Your task to perform on an android device: Open Yahoo.com Image 0: 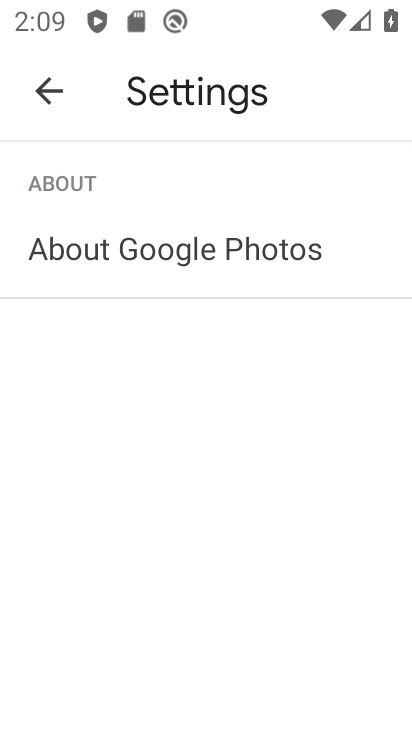
Step 0: press back button
Your task to perform on an android device: Open Yahoo.com Image 1: 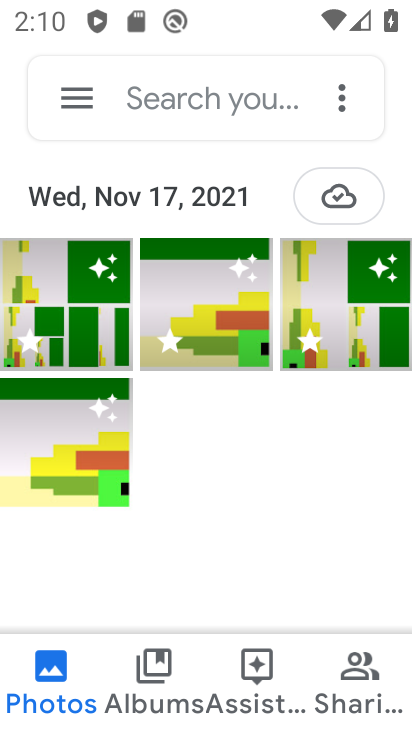
Step 1: press home button
Your task to perform on an android device: Open Yahoo.com Image 2: 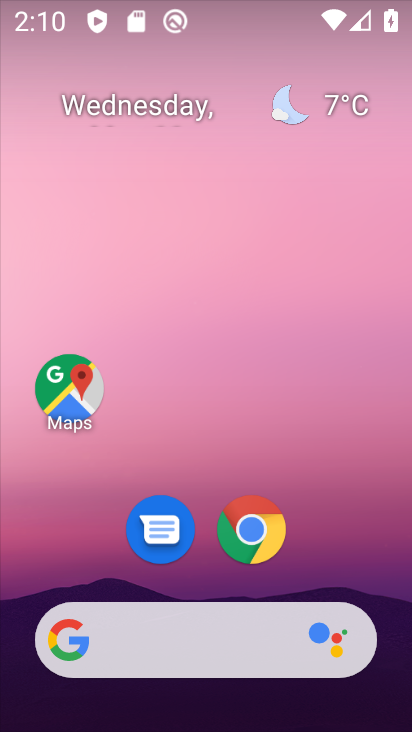
Step 2: click (242, 529)
Your task to perform on an android device: Open Yahoo.com Image 3: 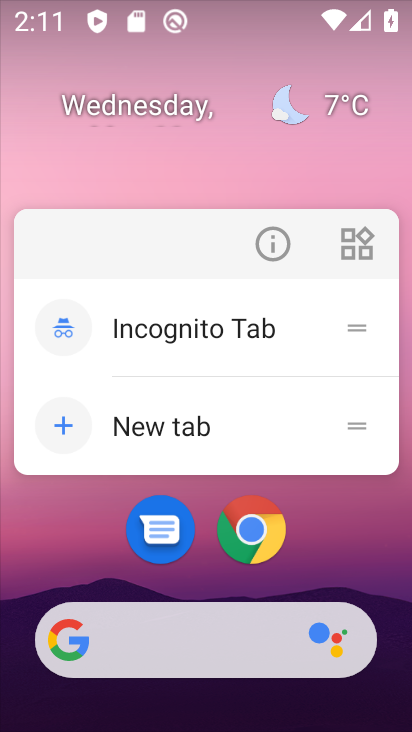
Step 3: click (253, 536)
Your task to perform on an android device: Open Yahoo.com Image 4: 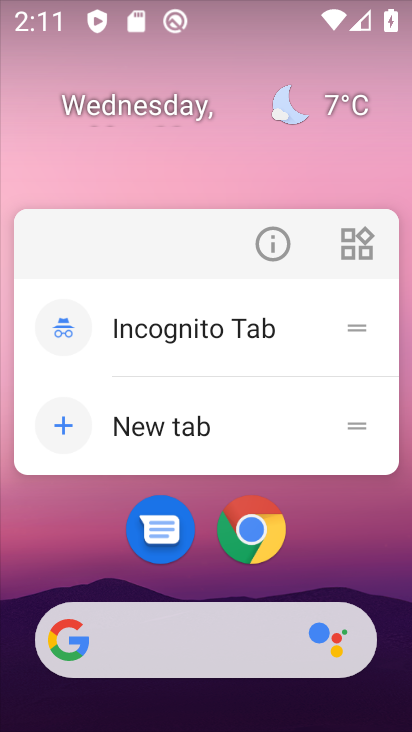
Step 4: click (246, 521)
Your task to perform on an android device: Open Yahoo.com Image 5: 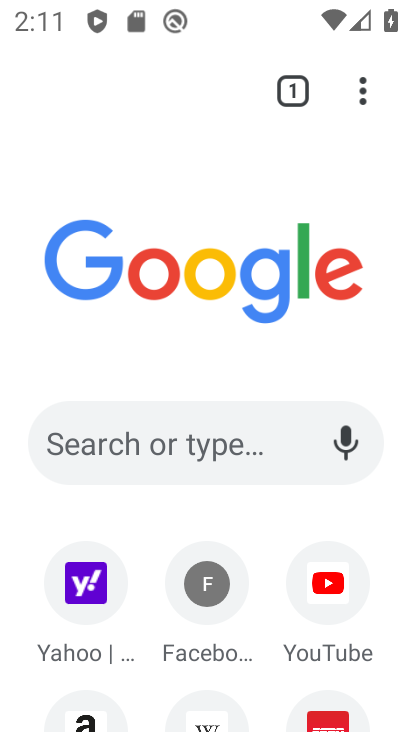
Step 5: click (84, 580)
Your task to perform on an android device: Open Yahoo.com Image 6: 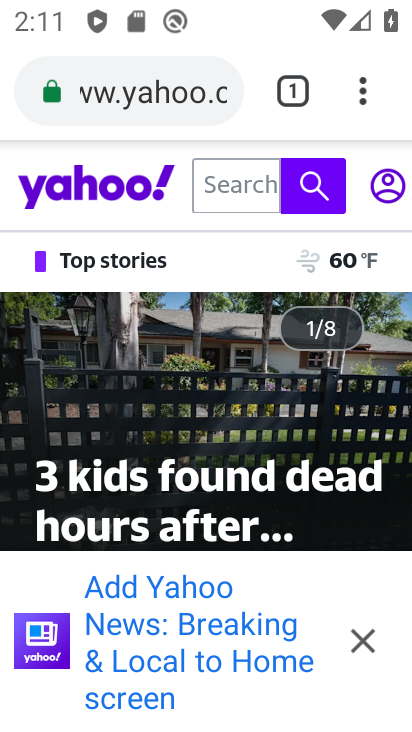
Step 6: task complete